Your task to perform on an android device: Search for "bose soundlink" on ebay, select the first entry, add it to the cart, then select checkout. Image 0: 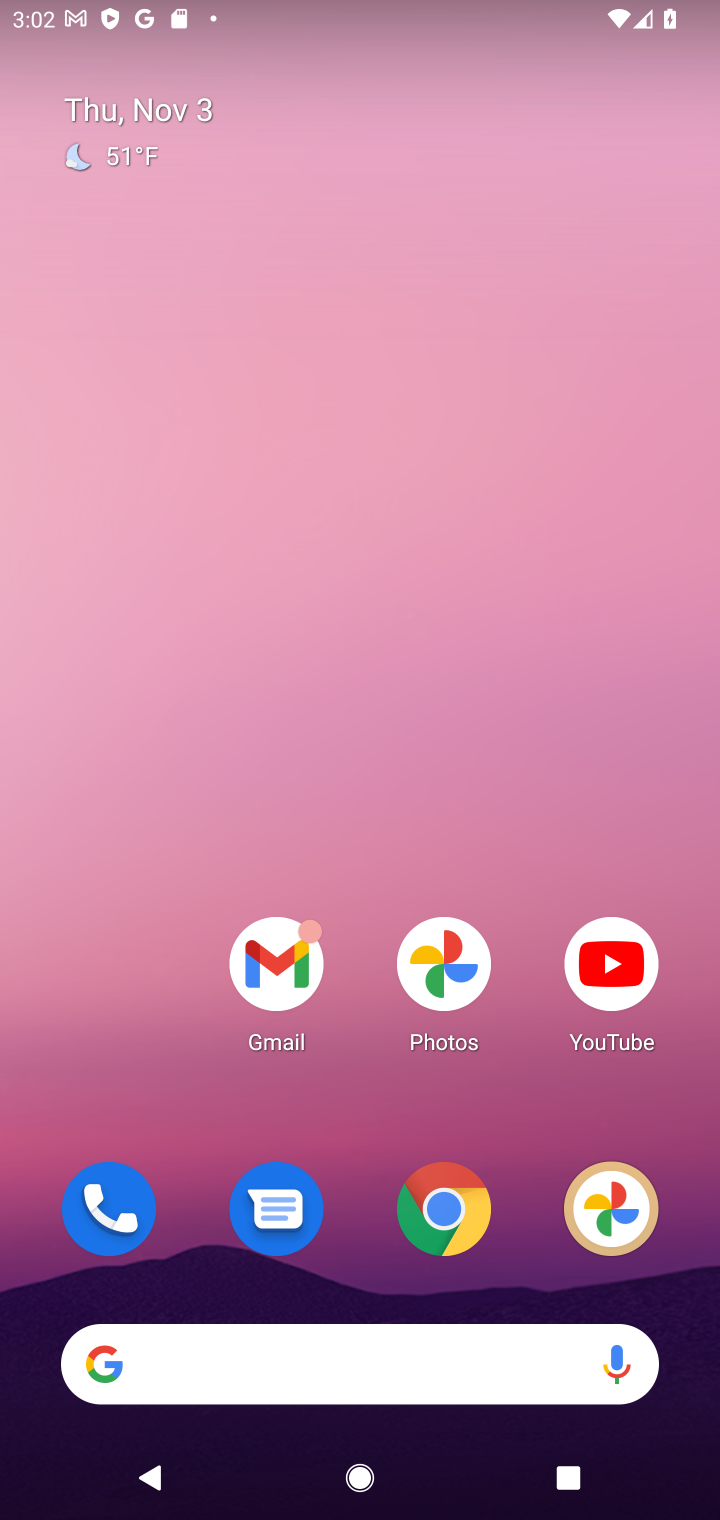
Step 0: click (433, 1251)
Your task to perform on an android device: Search for "bose soundlink" on ebay, select the first entry, add it to the cart, then select checkout. Image 1: 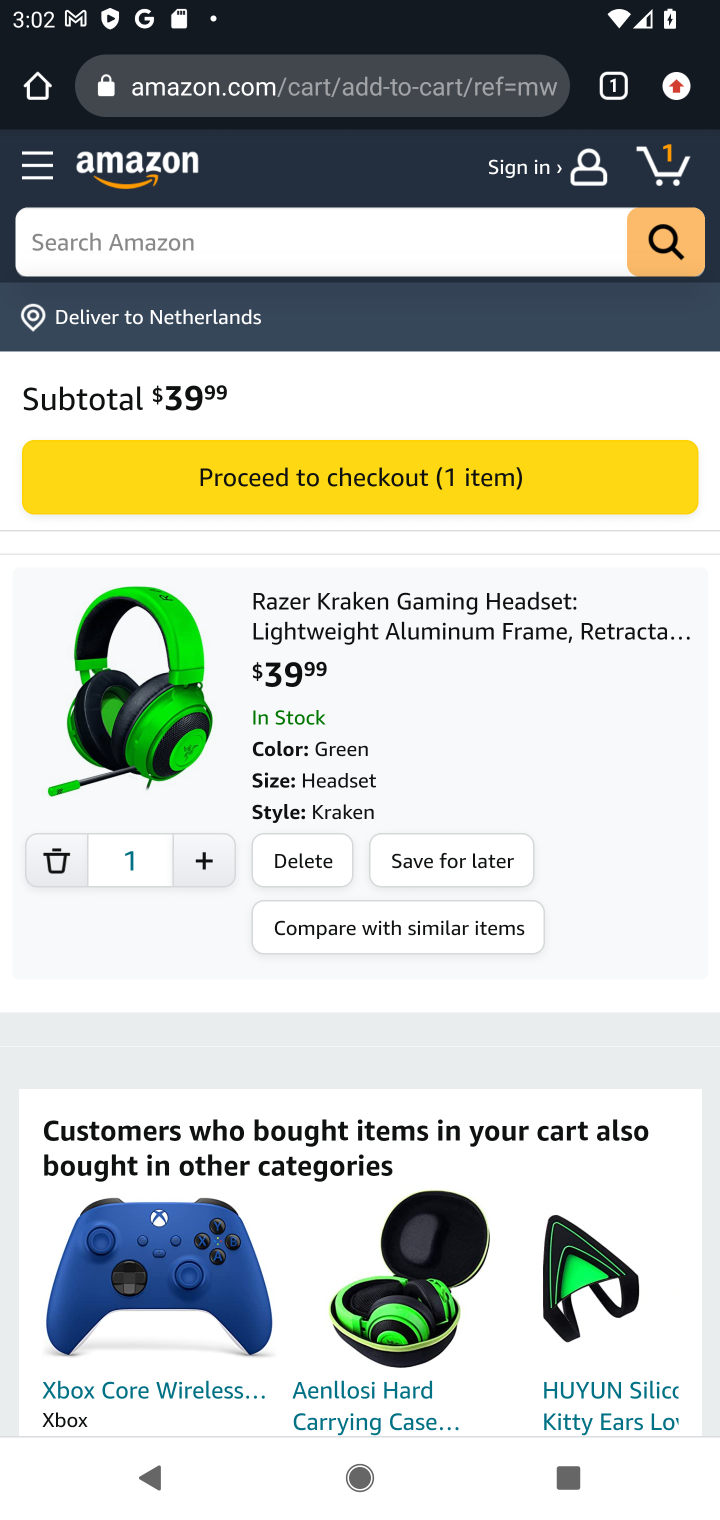
Step 1: click (314, 80)
Your task to perform on an android device: Search for "bose soundlink" on ebay, select the first entry, add it to the cart, then select checkout. Image 2: 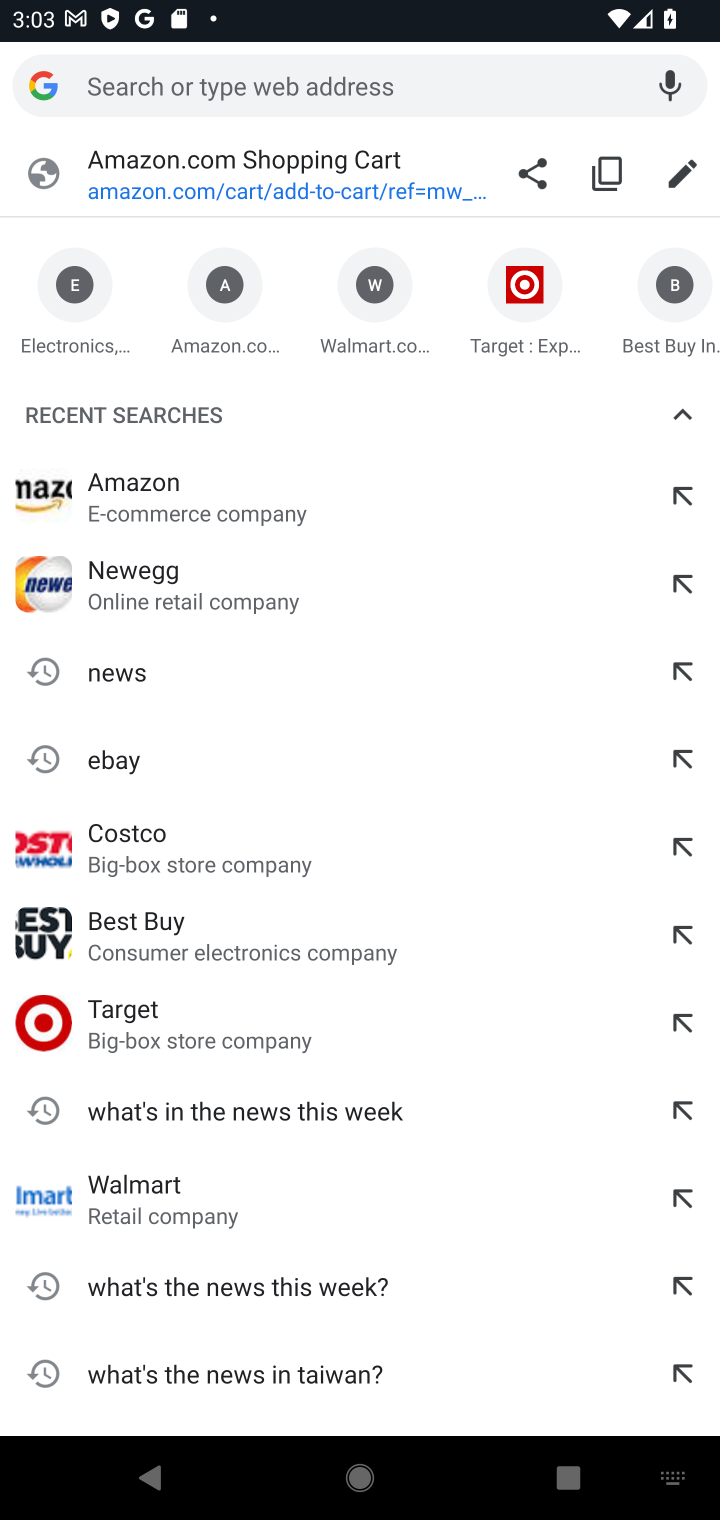
Step 2: type "ebay"
Your task to perform on an android device: Search for "bose soundlink" on ebay, select the first entry, add it to the cart, then select checkout. Image 3: 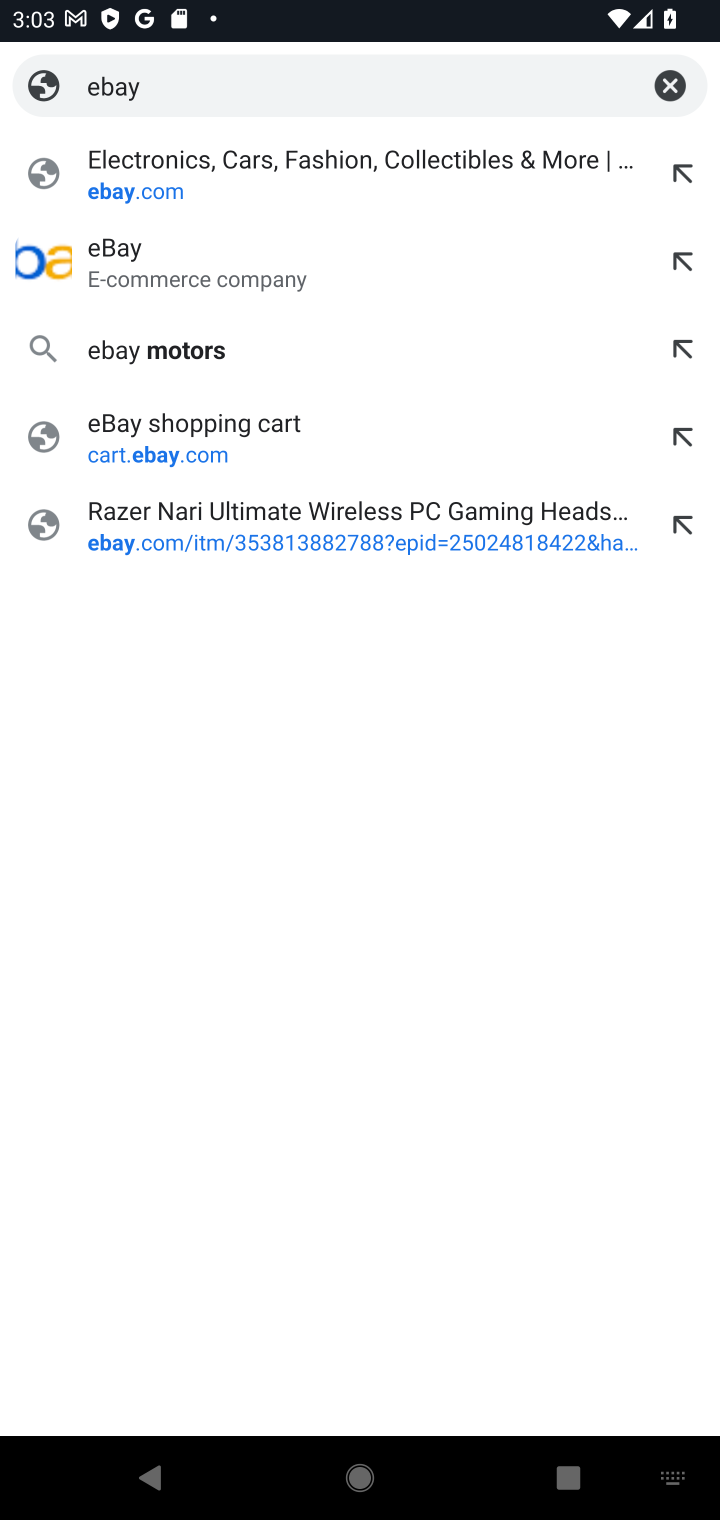
Step 3: click (383, 184)
Your task to perform on an android device: Search for "bose soundlink" on ebay, select the first entry, add it to the cart, then select checkout. Image 4: 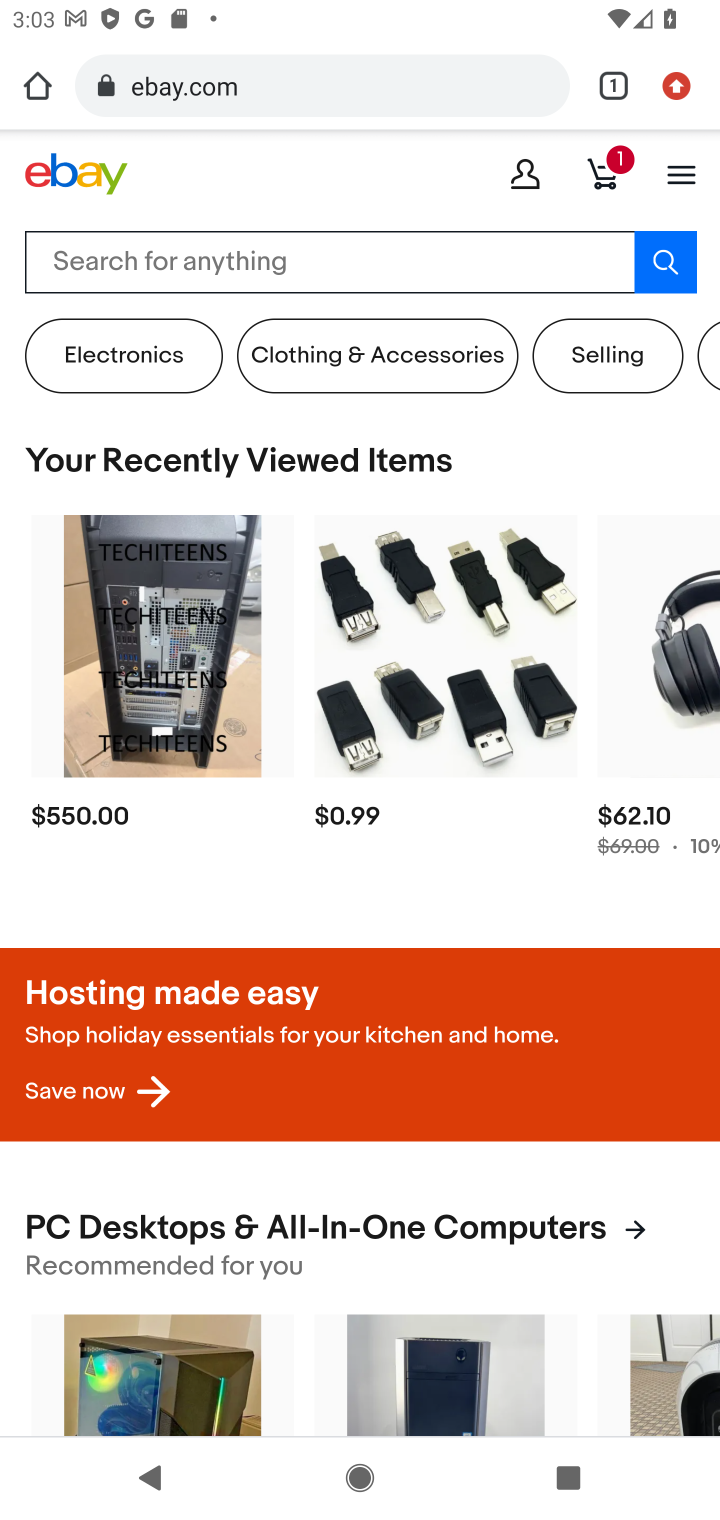
Step 4: click (327, 264)
Your task to perform on an android device: Search for "bose soundlink" on ebay, select the first entry, add it to the cart, then select checkout. Image 5: 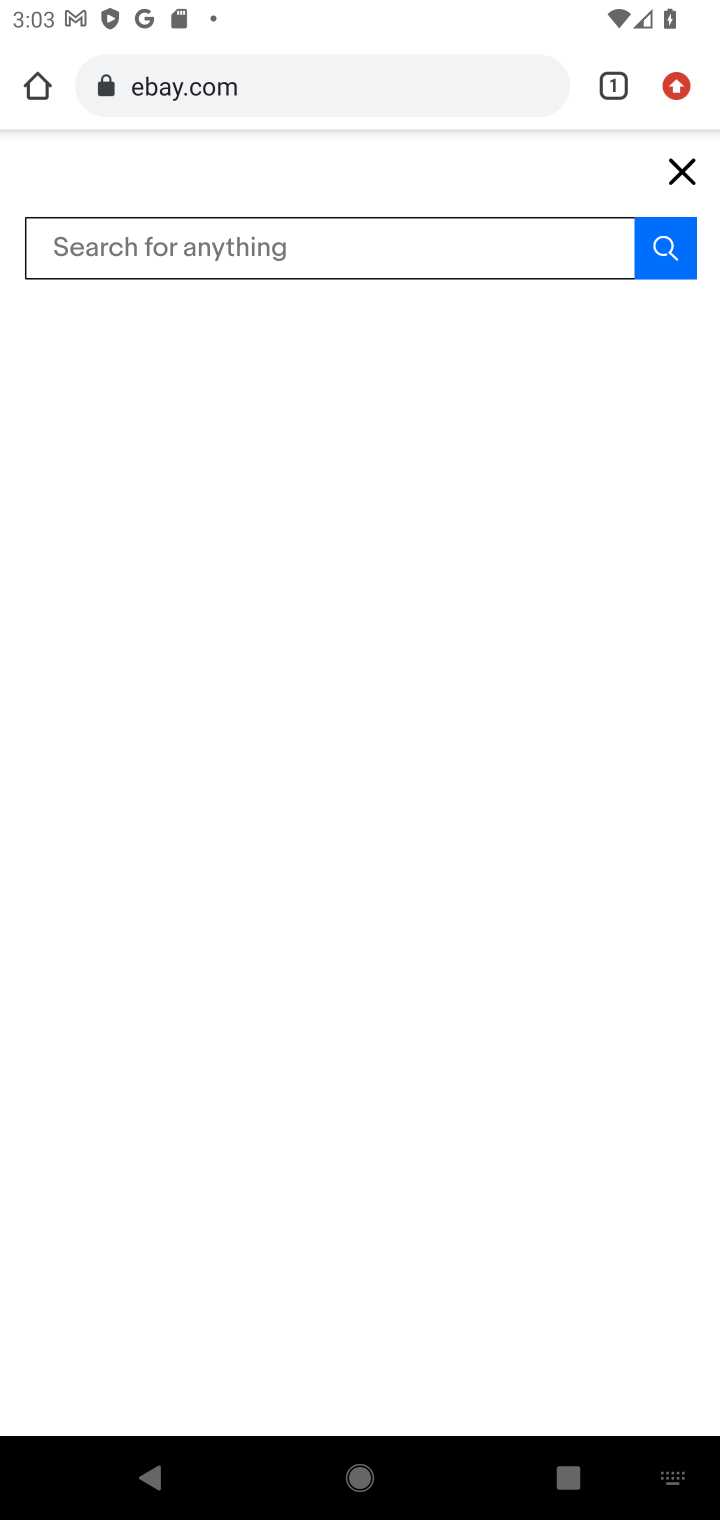
Step 5: type "bose soundlink"
Your task to perform on an android device: Search for "bose soundlink" on ebay, select the first entry, add it to the cart, then select checkout. Image 6: 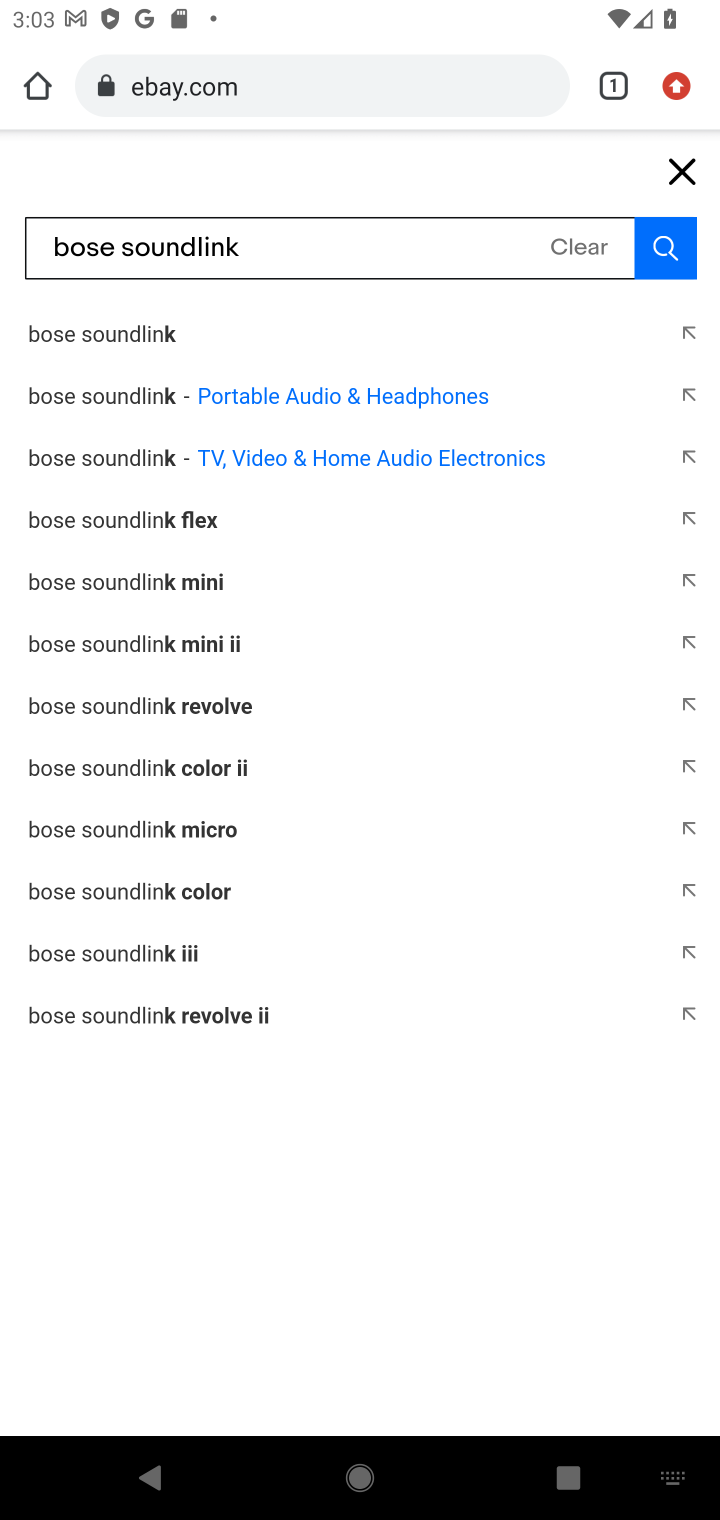
Step 6: press enter
Your task to perform on an android device: Search for "bose soundlink" on ebay, select the first entry, add it to the cart, then select checkout. Image 7: 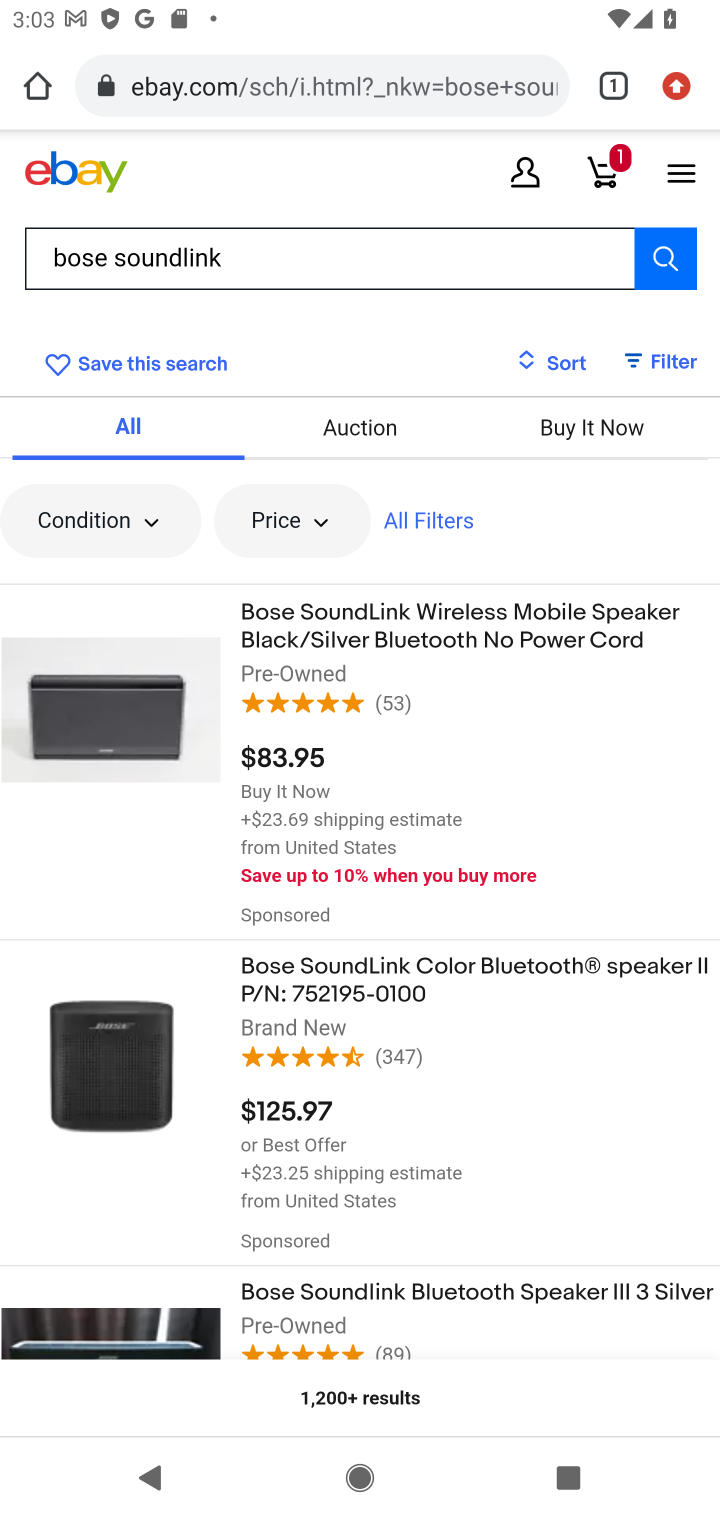
Step 7: click (148, 725)
Your task to perform on an android device: Search for "bose soundlink" on ebay, select the first entry, add it to the cart, then select checkout. Image 8: 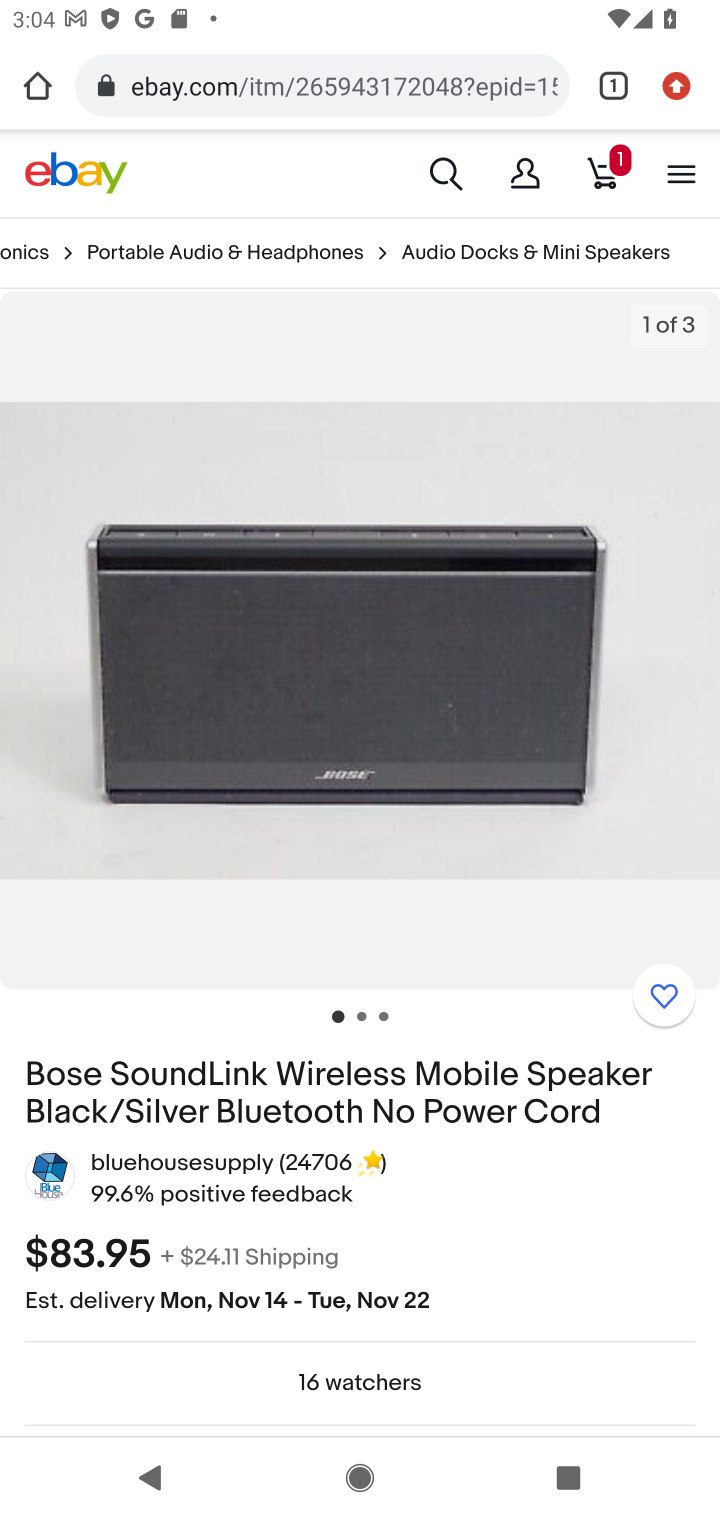
Step 8: drag from (483, 1242) to (425, 403)
Your task to perform on an android device: Search for "bose soundlink" on ebay, select the first entry, add it to the cart, then select checkout. Image 9: 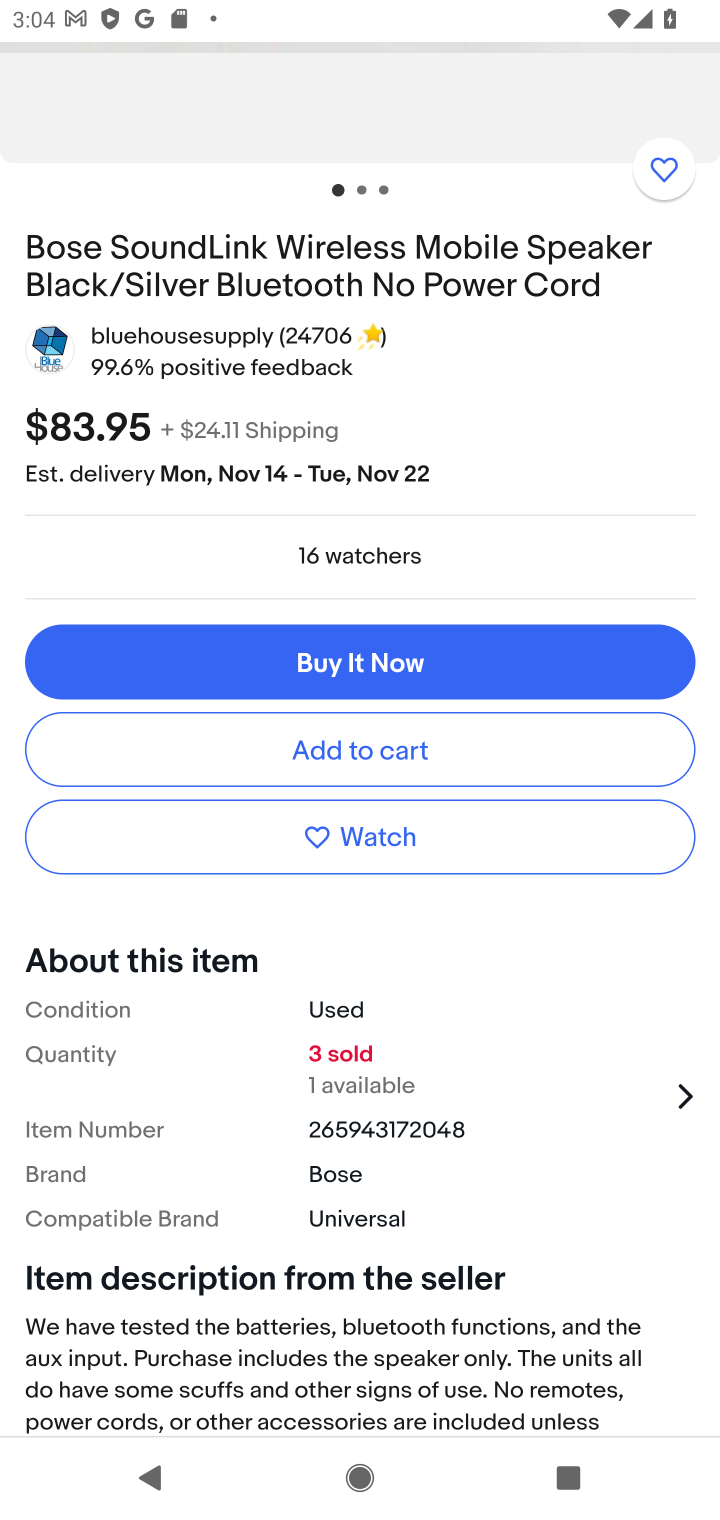
Step 9: click (354, 758)
Your task to perform on an android device: Search for "bose soundlink" on ebay, select the first entry, add it to the cart, then select checkout. Image 10: 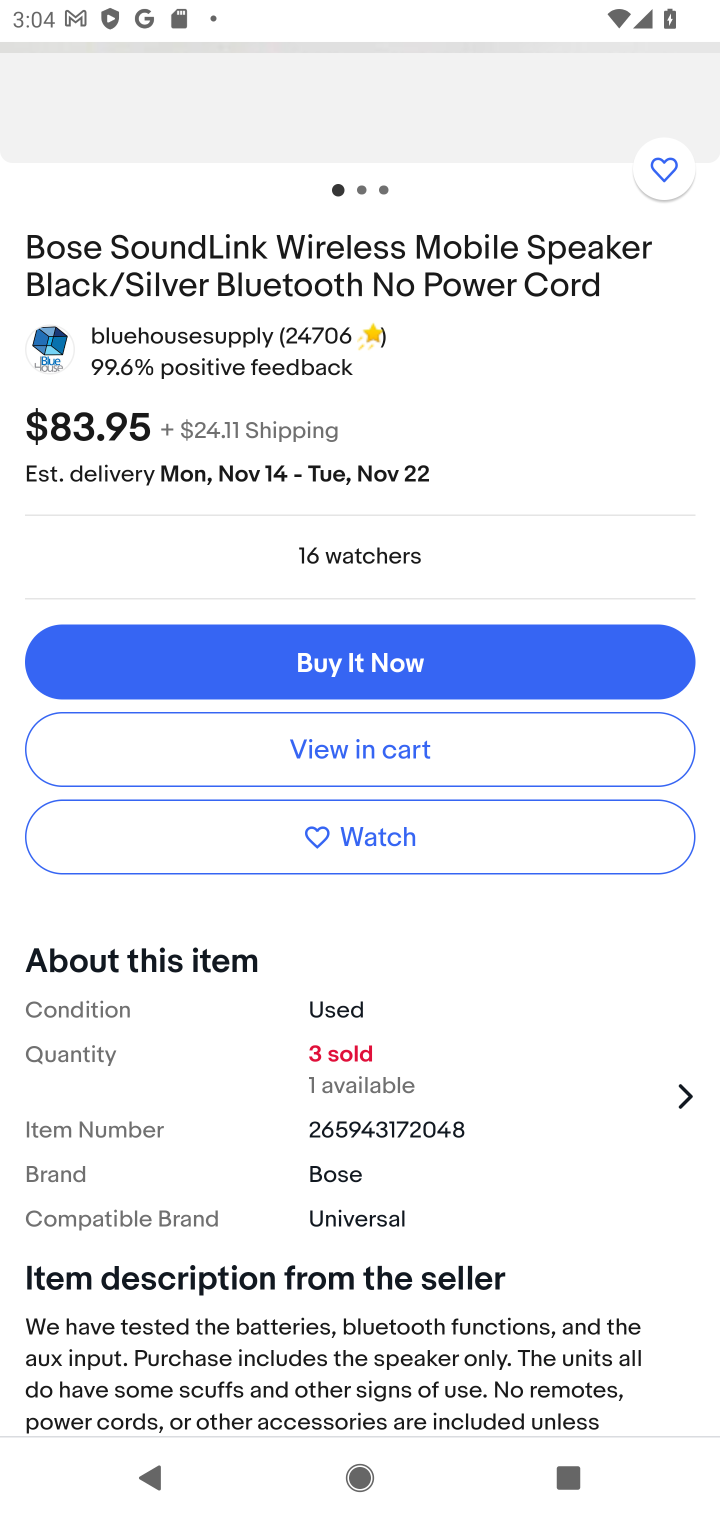
Step 10: drag from (538, 386) to (524, 1288)
Your task to perform on an android device: Search for "bose soundlink" on ebay, select the first entry, add it to the cart, then select checkout. Image 11: 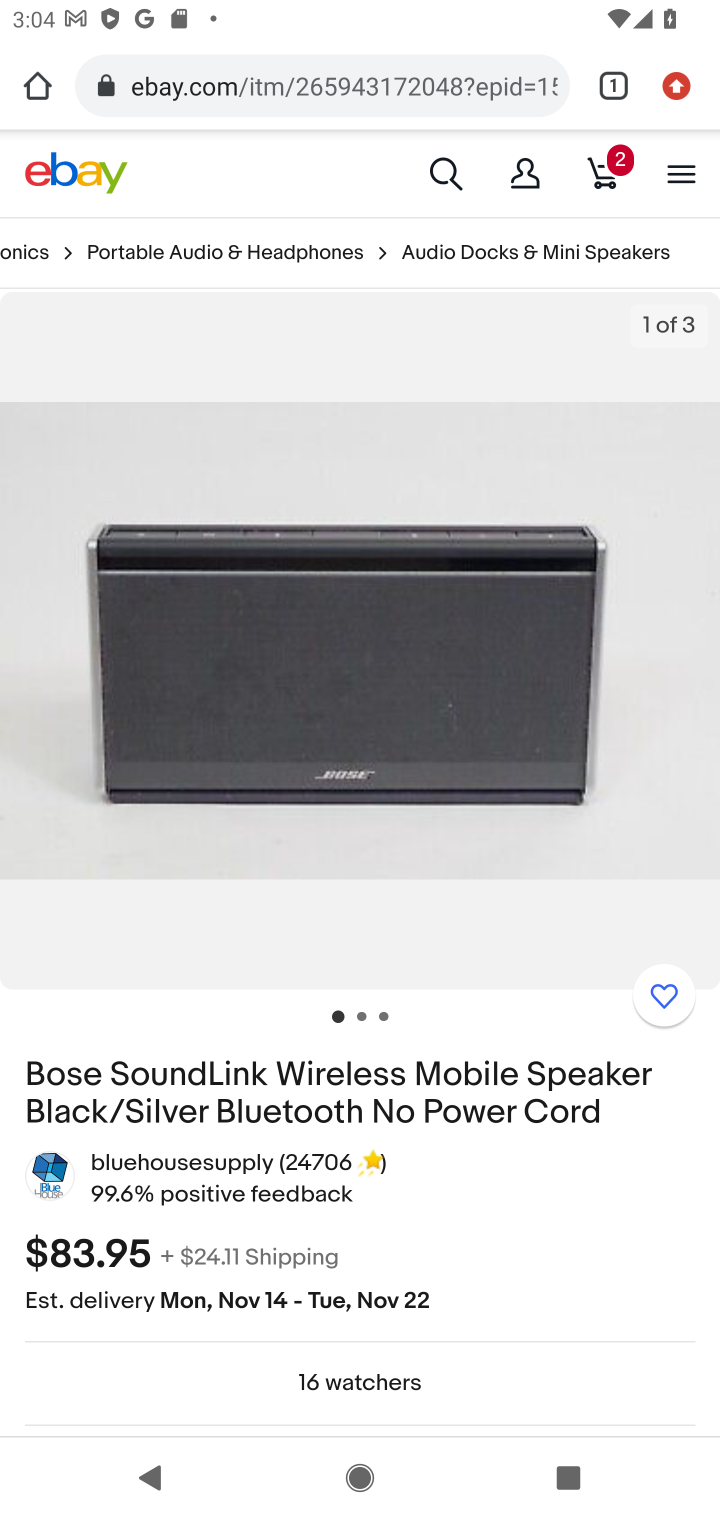
Step 11: click (603, 181)
Your task to perform on an android device: Search for "bose soundlink" on ebay, select the first entry, add it to the cart, then select checkout. Image 12: 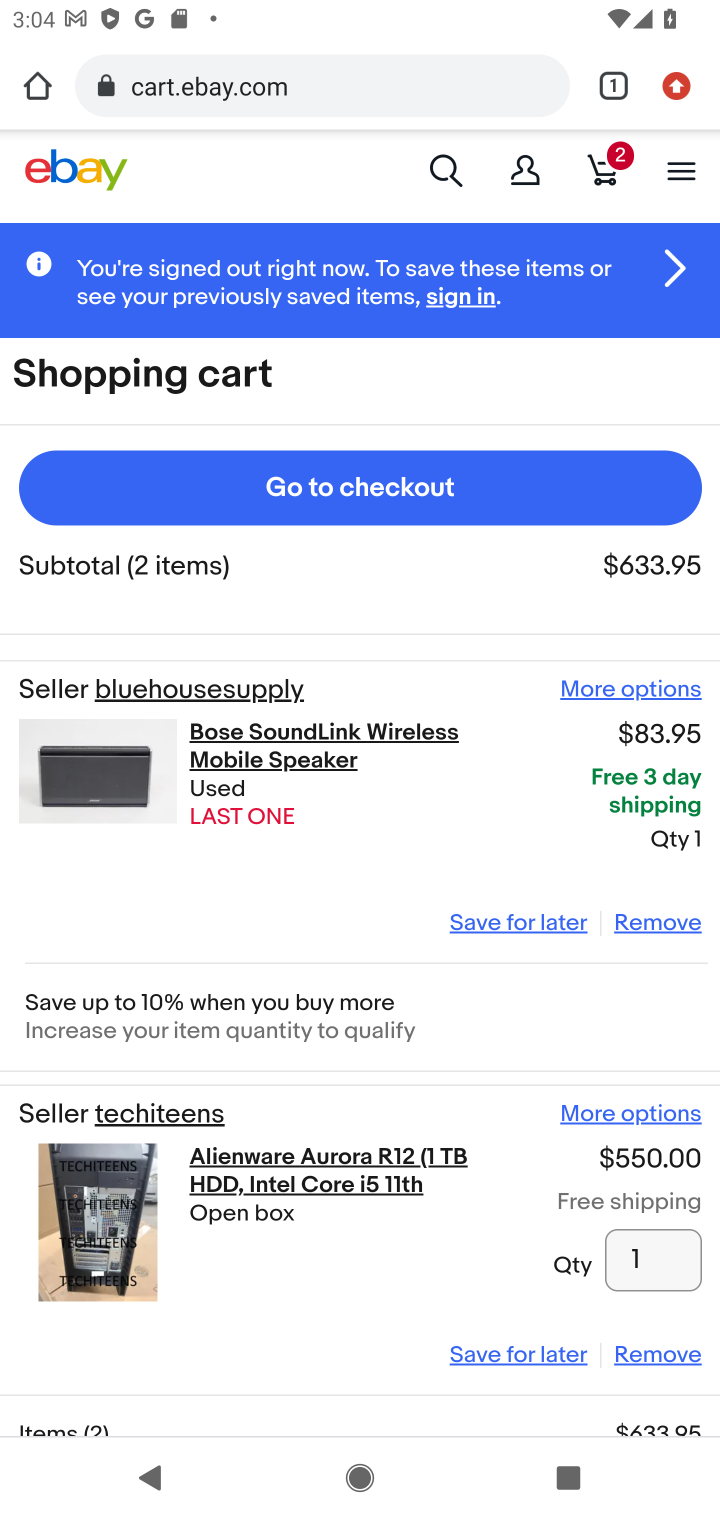
Step 12: click (473, 500)
Your task to perform on an android device: Search for "bose soundlink" on ebay, select the first entry, add it to the cart, then select checkout. Image 13: 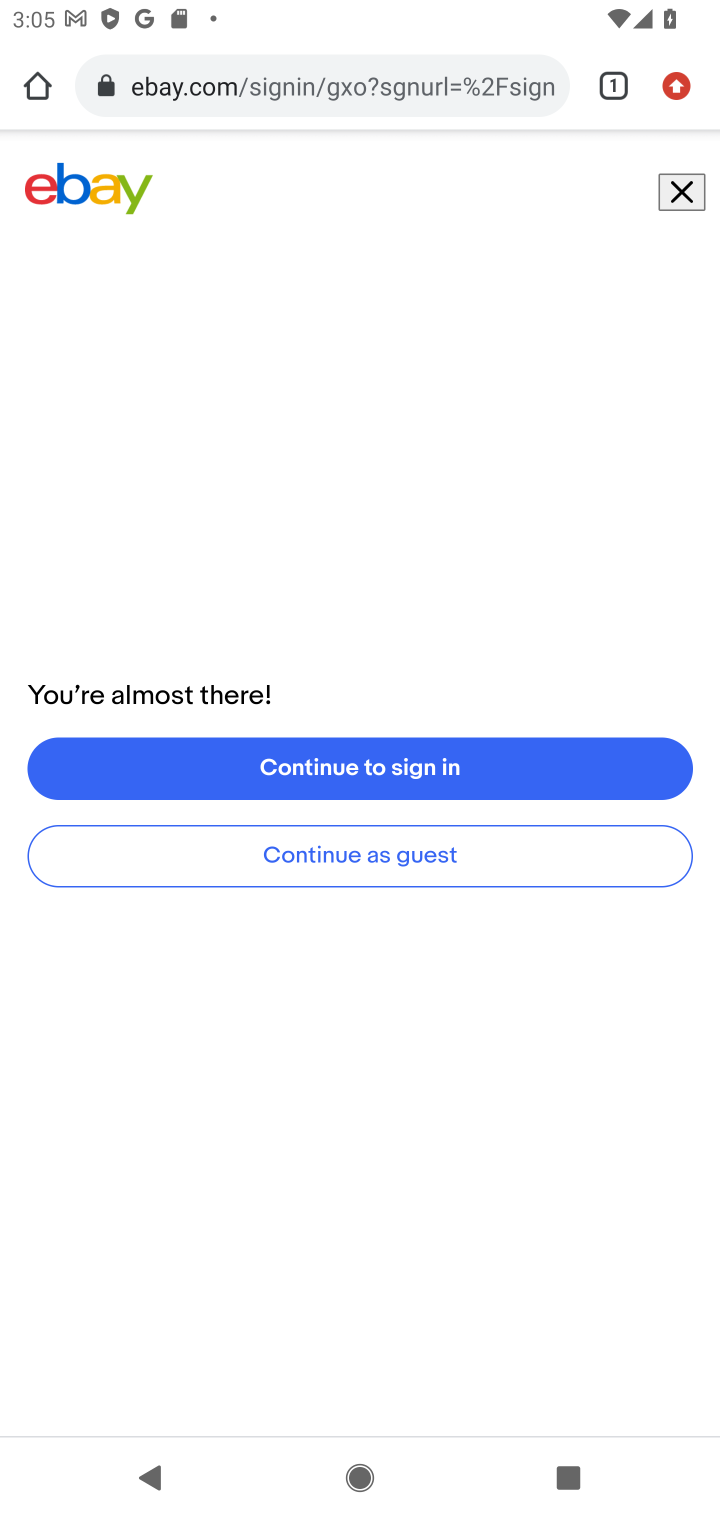
Step 13: task complete